Your task to perform on an android device: Search for pizza restaurants on Maps Image 0: 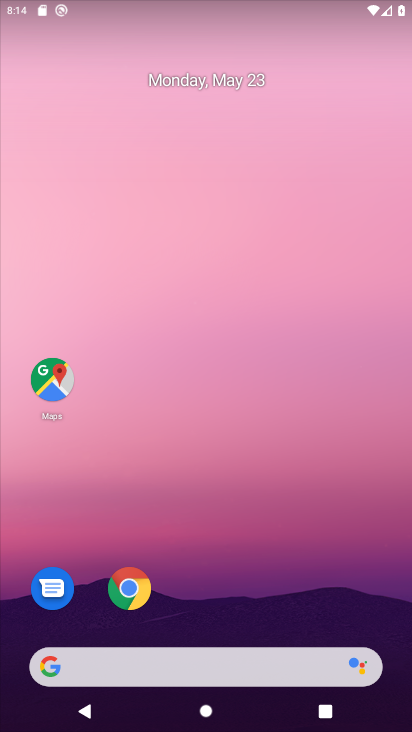
Step 0: click (66, 374)
Your task to perform on an android device: Search for pizza restaurants on Maps Image 1: 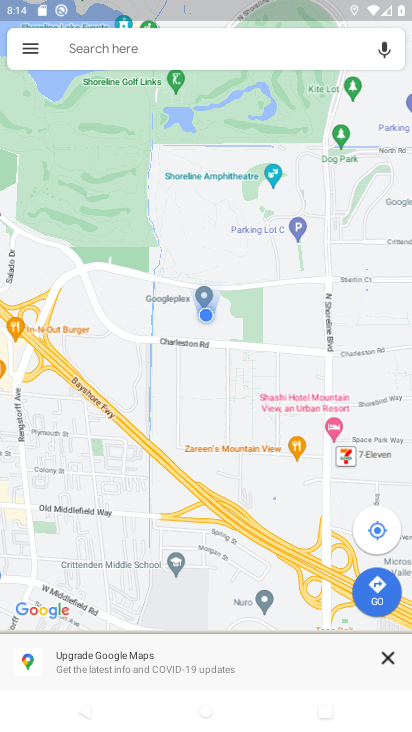
Step 1: click (102, 60)
Your task to perform on an android device: Search for pizza restaurants on Maps Image 2: 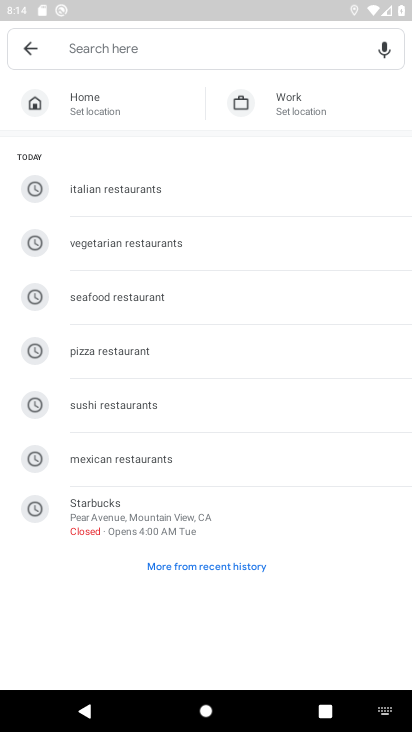
Step 2: type "pizza restaurants"
Your task to perform on an android device: Search for pizza restaurants on Maps Image 3: 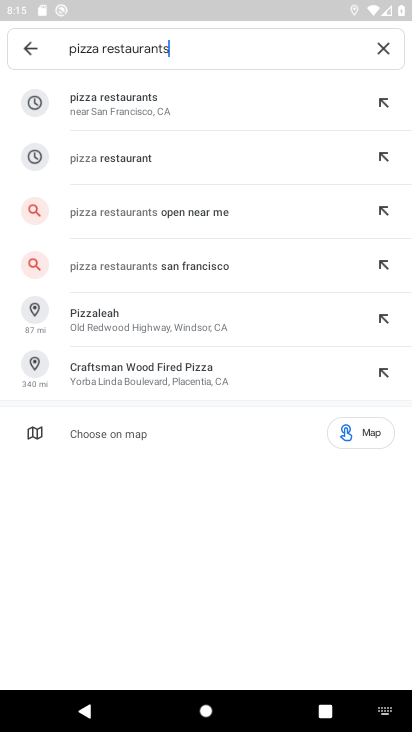
Step 3: click (140, 120)
Your task to perform on an android device: Search for pizza restaurants on Maps Image 4: 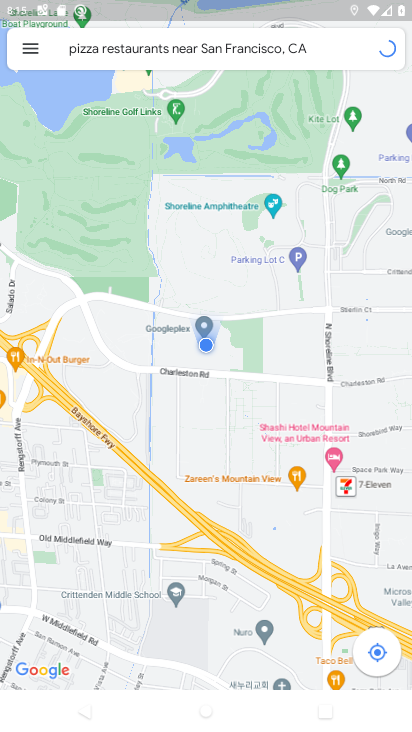
Step 4: task complete